Your task to perform on an android device: What's the news in the Dominican Republic? Image 0: 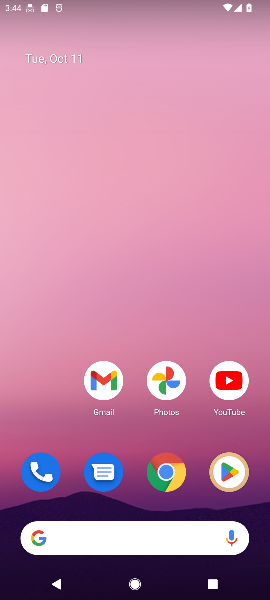
Step 0: click (171, 464)
Your task to perform on an android device: What's the news in the Dominican Republic? Image 1: 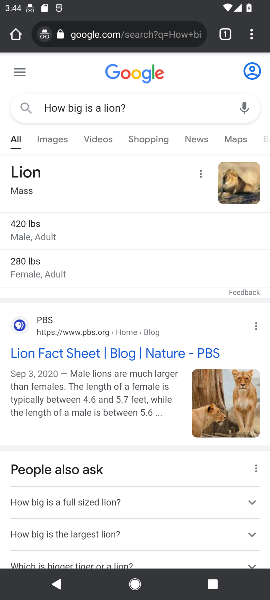
Step 1: click (84, 31)
Your task to perform on an android device: What's the news in the Dominican Republic? Image 2: 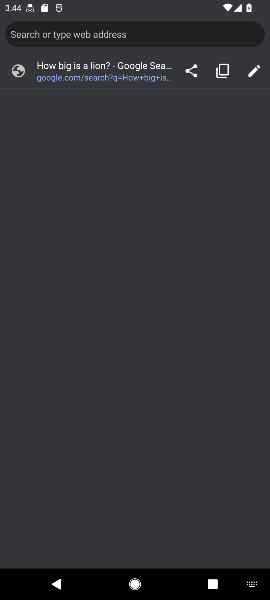
Step 2: type "What's the news in the Dominican Republic?"
Your task to perform on an android device: What's the news in the Dominican Republic? Image 3: 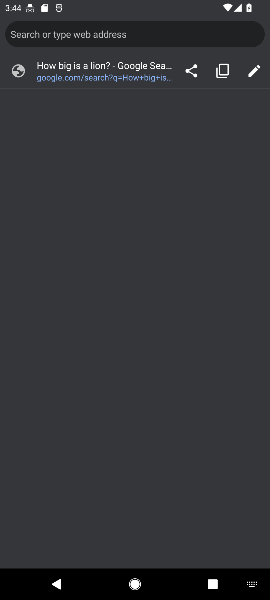
Step 3: click (84, 30)
Your task to perform on an android device: What's the news in the Dominican Republic? Image 4: 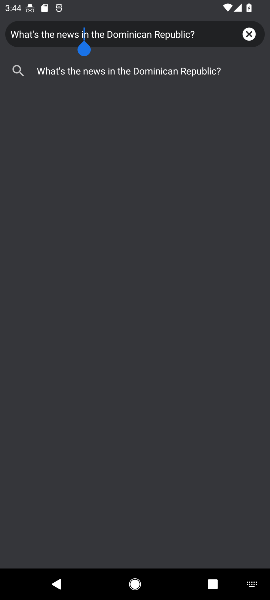
Step 4: click (77, 70)
Your task to perform on an android device: What's the news in the Dominican Republic? Image 5: 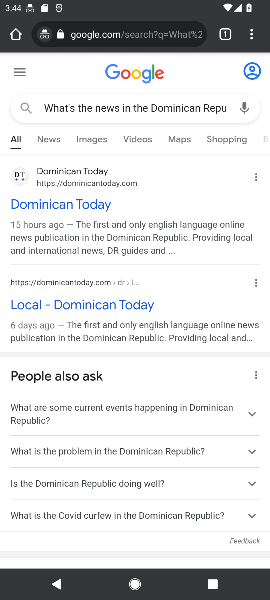
Step 5: click (43, 138)
Your task to perform on an android device: What's the news in the Dominican Republic? Image 6: 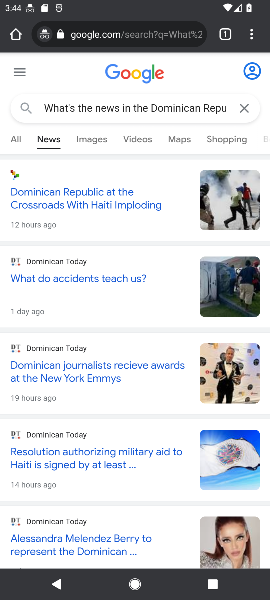
Step 6: task complete